Your task to perform on an android device: See recent photos Image 0: 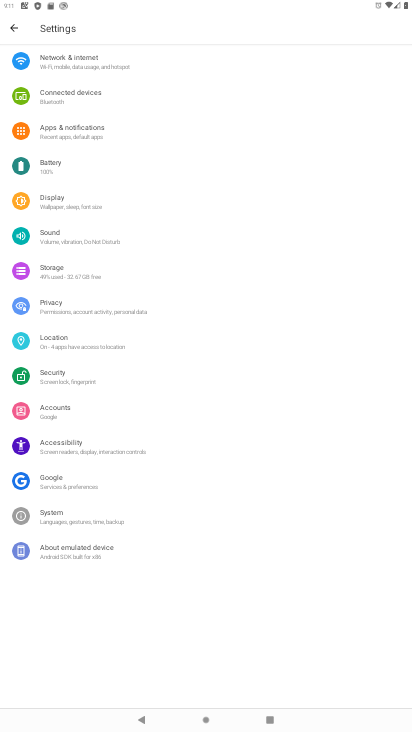
Step 0: press home button
Your task to perform on an android device: See recent photos Image 1: 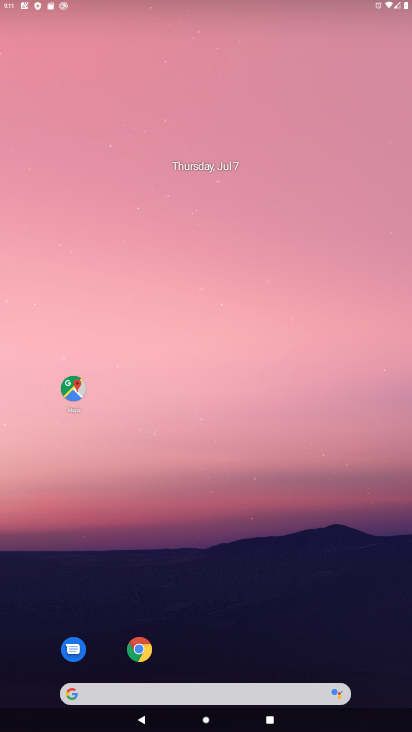
Step 1: drag from (189, 633) to (212, 151)
Your task to perform on an android device: See recent photos Image 2: 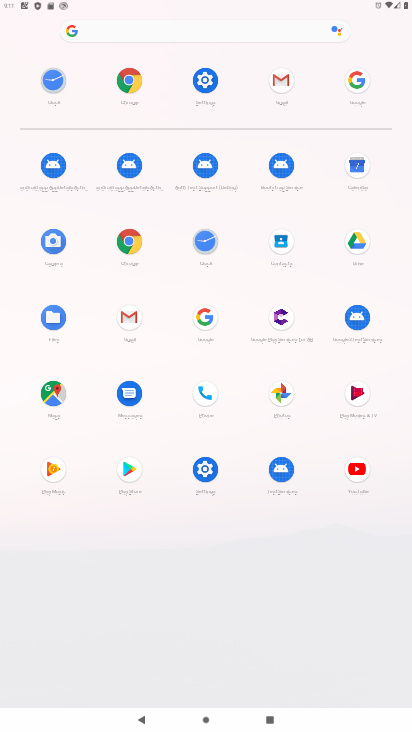
Step 2: click (280, 391)
Your task to perform on an android device: See recent photos Image 3: 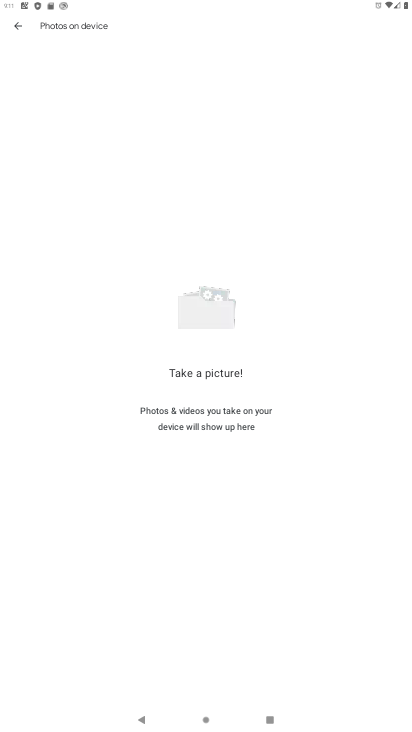
Step 3: task complete